Your task to perform on an android device: empty trash in the gmail app Image 0: 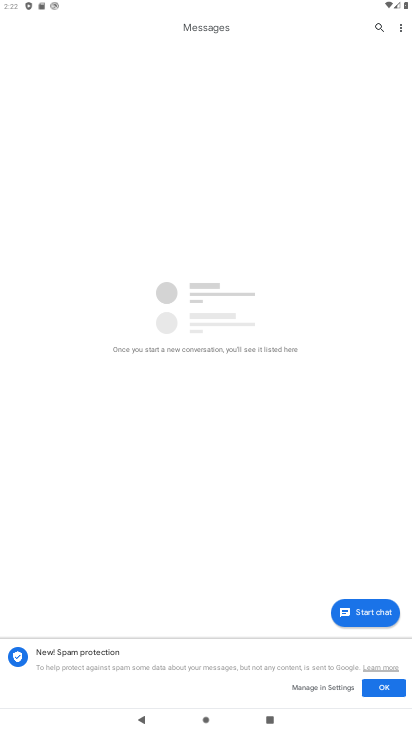
Step 0: press back button
Your task to perform on an android device: empty trash in the gmail app Image 1: 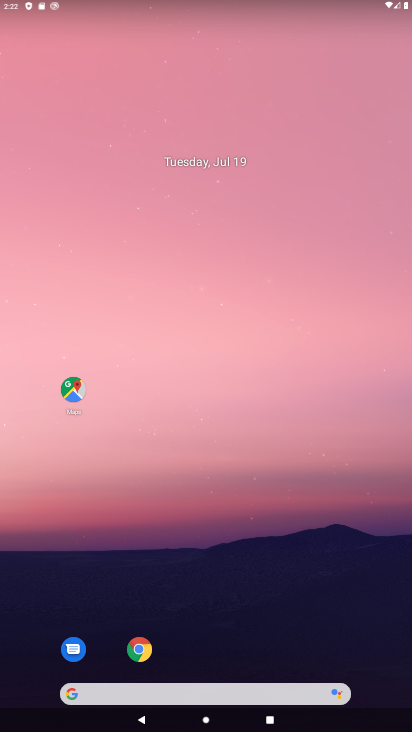
Step 1: drag from (183, 624) to (272, 7)
Your task to perform on an android device: empty trash in the gmail app Image 2: 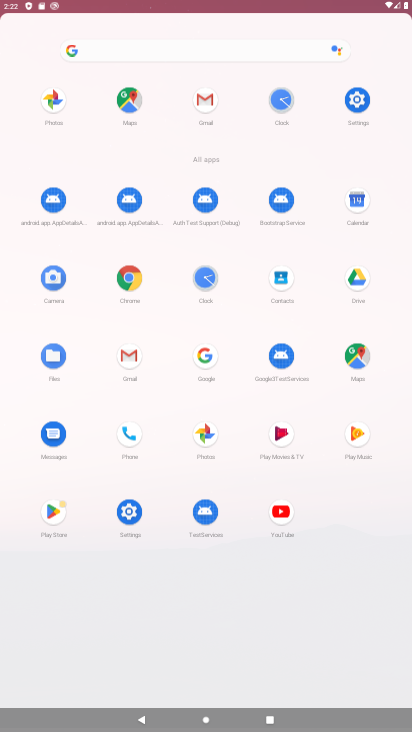
Step 2: click (358, 133)
Your task to perform on an android device: empty trash in the gmail app Image 3: 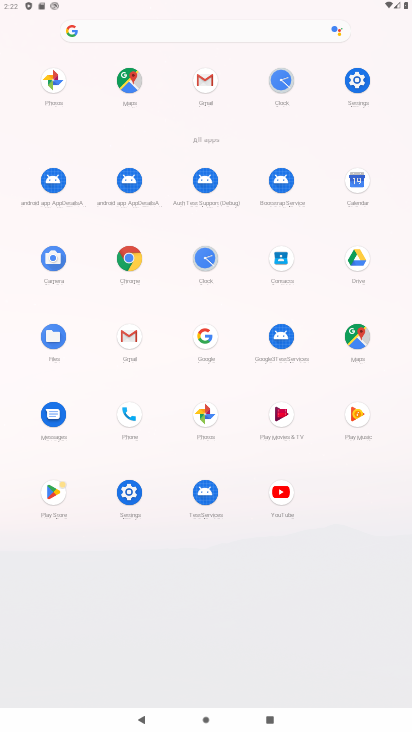
Step 3: click (355, 81)
Your task to perform on an android device: empty trash in the gmail app Image 4: 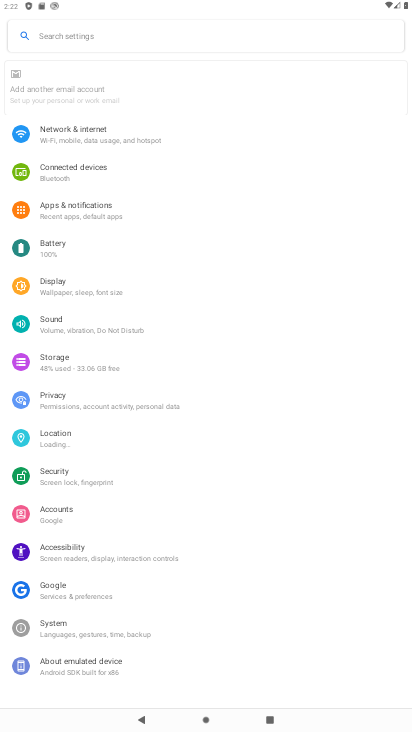
Step 4: click (65, 230)
Your task to perform on an android device: empty trash in the gmail app Image 5: 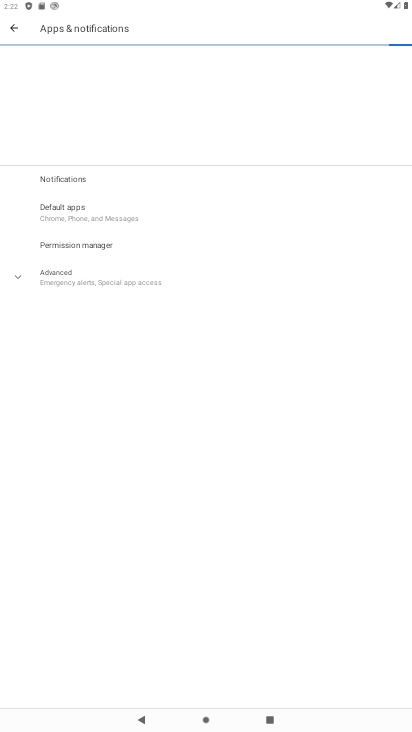
Step 5: click (12, 27)
Your task to perform on an android device: empty trash in the gmail app Image 6: 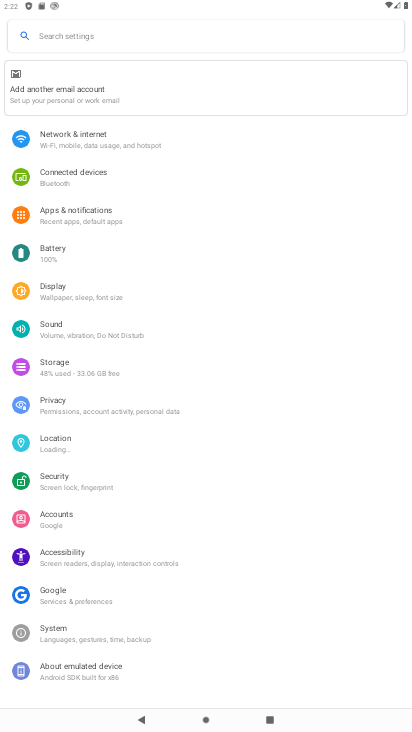
Step 6: click (105, 283)
Your task to perform on an android device: empty trash in the gmail app Image 7: 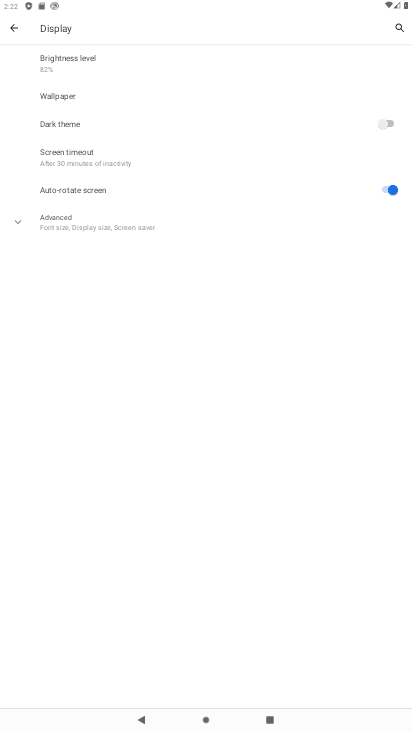
Step 7: click (84, 219)
Your task to perform on an android device: empty trash in the gmail app Image 8: 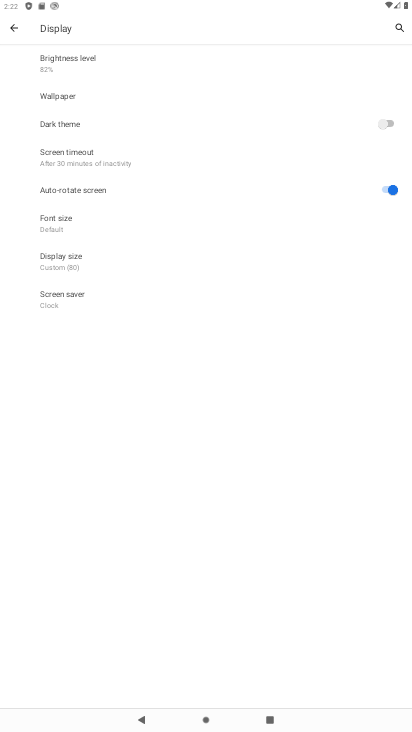
Step 8: click (63, 267)
Your task to perform on an android device: empty trash in the gmail app Image 9: 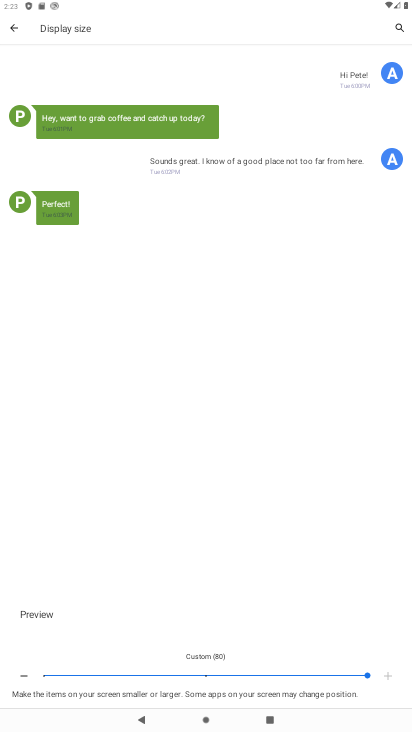
Step 9: click (207, 680)
Your task to perform on an android device: empty trash in the gmail app Image 10: 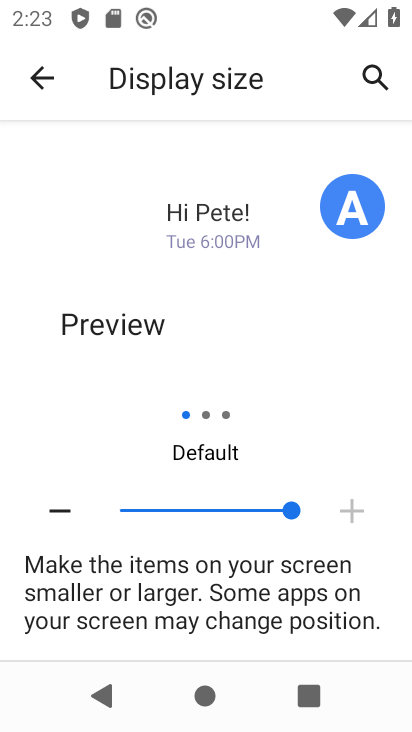
Step 10: click (36, 69)
Your task to perform on an android device: empty trash in the gmail app Image 11: 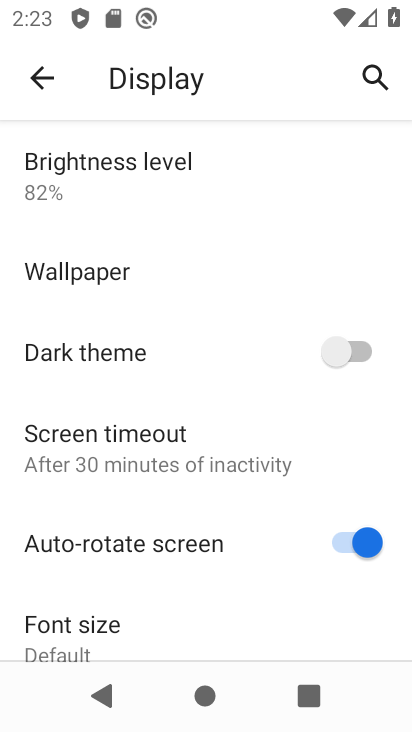
Step 11: click (36, 69)
Your task to perform on an android device: empty trash in the gmail app Image 12: 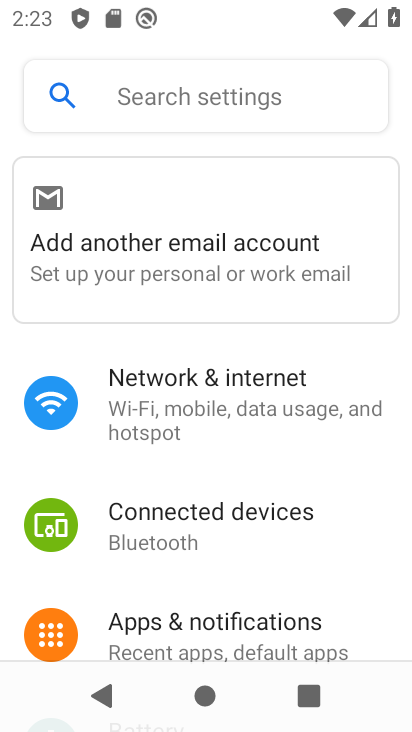
Step 12: press back button
Your task to perform on an android device: empty trash in the gmail app Image 13: 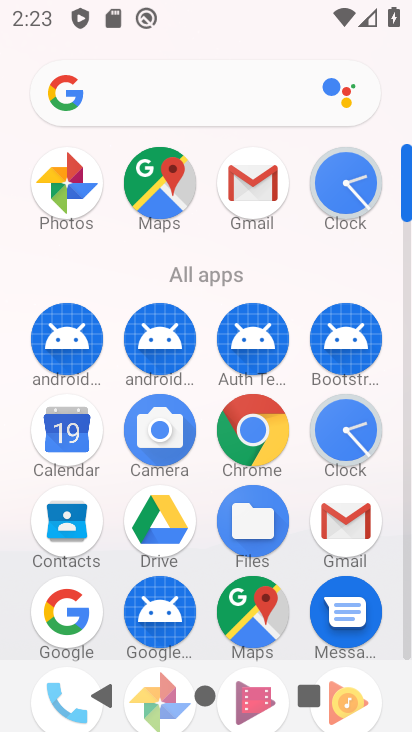
Step 13: press back button
Your task to perform on an android device: empty trash in the gmail app Image 14: 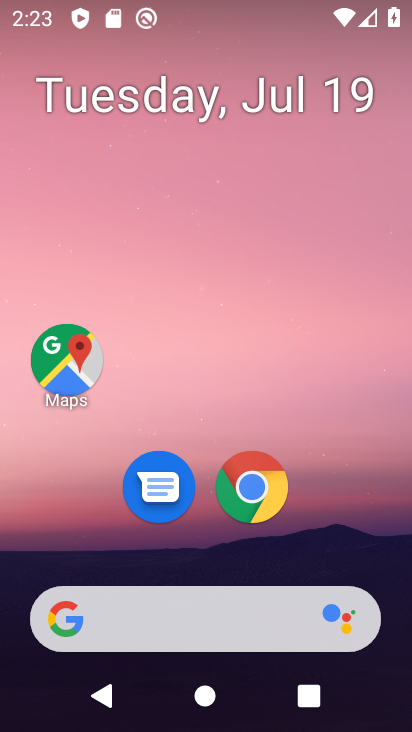
Step 14: drag from (181, 572) to (276, 3)
Your task to perform on an android device: empty trash in the gmail app Image 15: 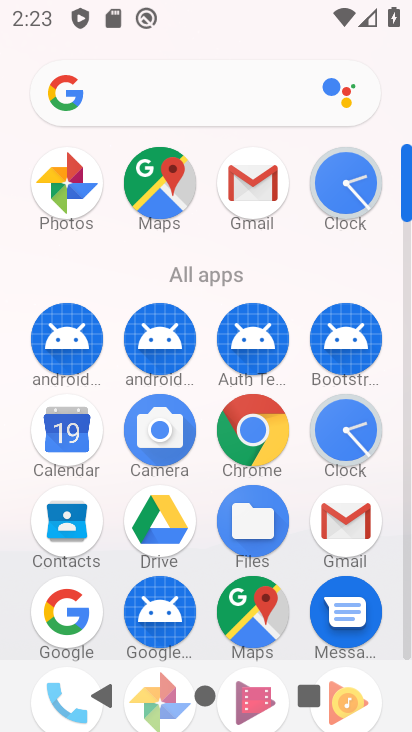
Step 15: click (257, 193)
Your task to perform on an android device: empty trash in the gmail app Image 16: 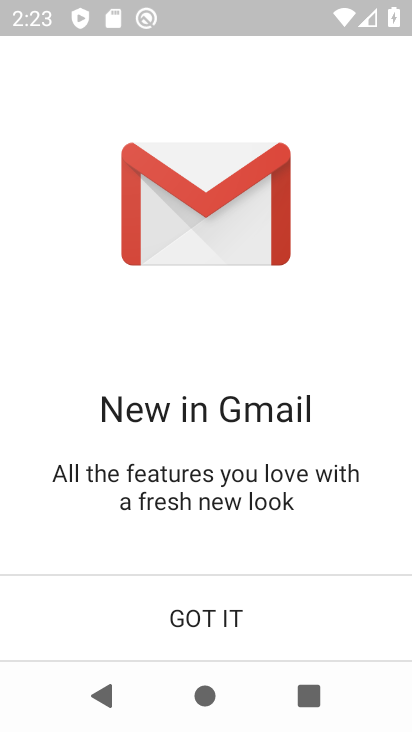
Step 16: click (182, 594)
Your task to perform on an android device: empty trash in the gmail app Image 17: 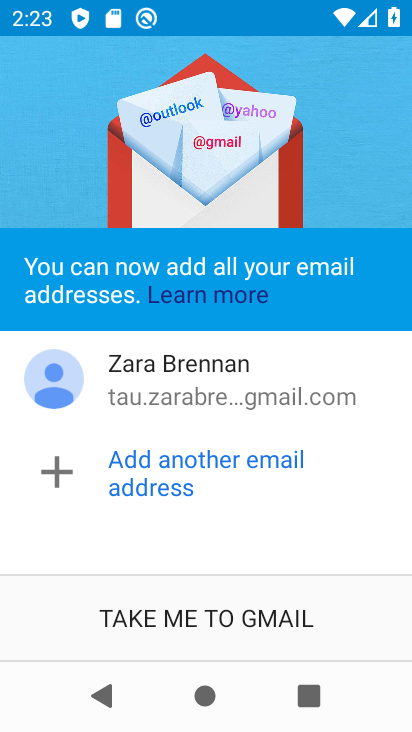
Step 17: click (204, 594)
Your task to perform on an android device: empty trash in the gmail app Image 18: 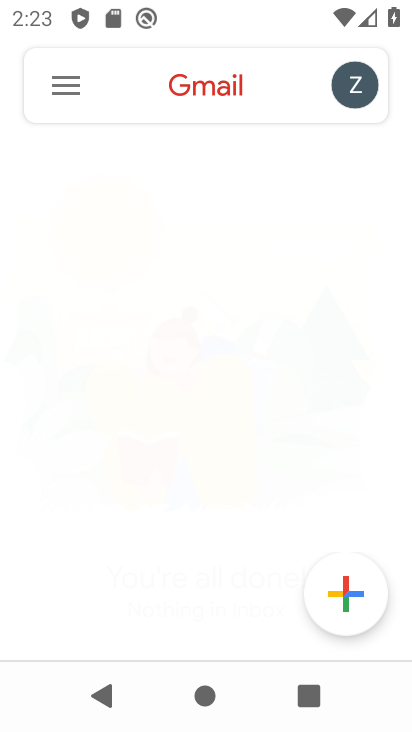
Step 18: click (63, 87)
Your task to perform on an android device: empty trash in the gmail app Image 19: 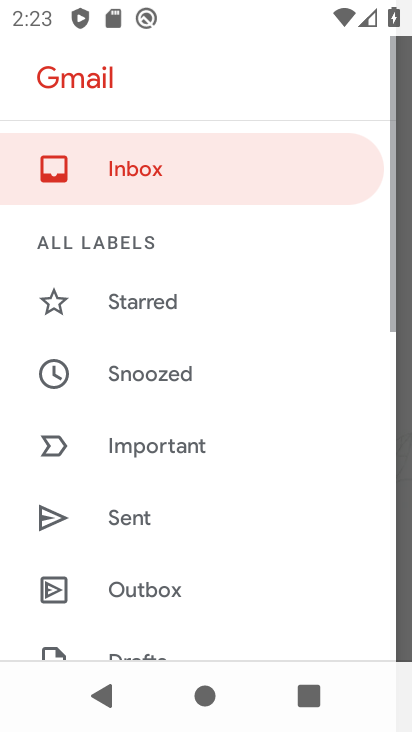
Step 19: drag from (179, 619) to (282, 91)
Your task to perform on an android device: empty trash in the gmail app Image 20: 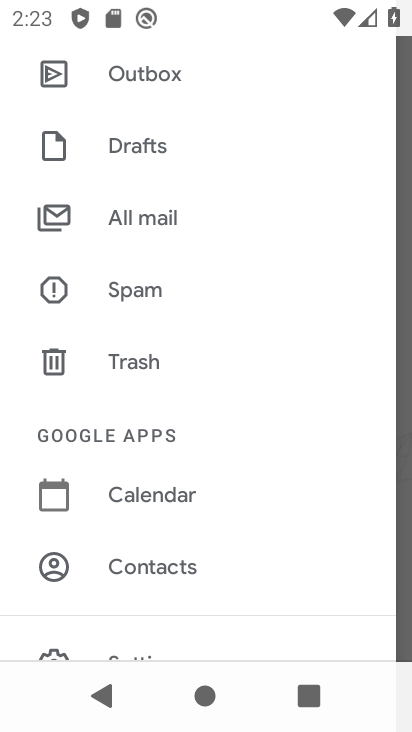
Step 20: click (139, 357)
Your task to perform on an android device: empty trash in the gmail app Image 21: 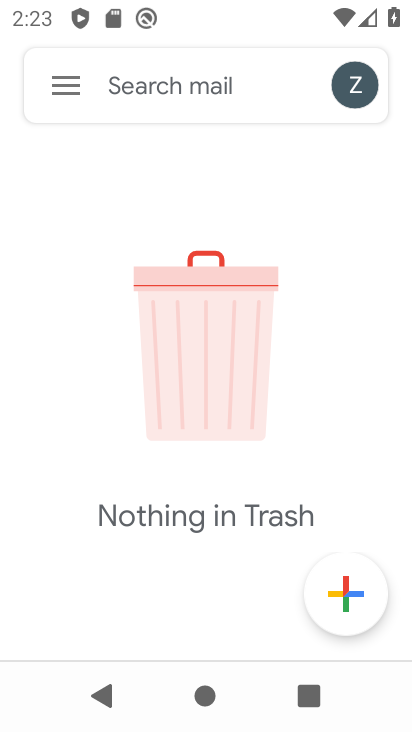
Step 21: task complete